Your task to perform on an android device: Open maps Image 0: 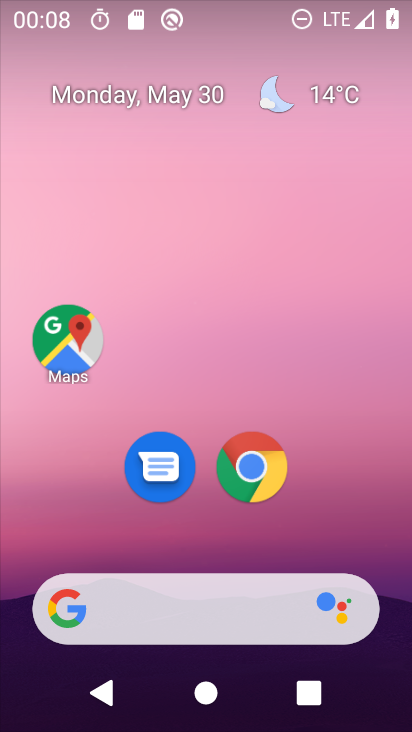
Step 0: click (62, 361)
Your task to perform on an android device: Open maps Image 1: 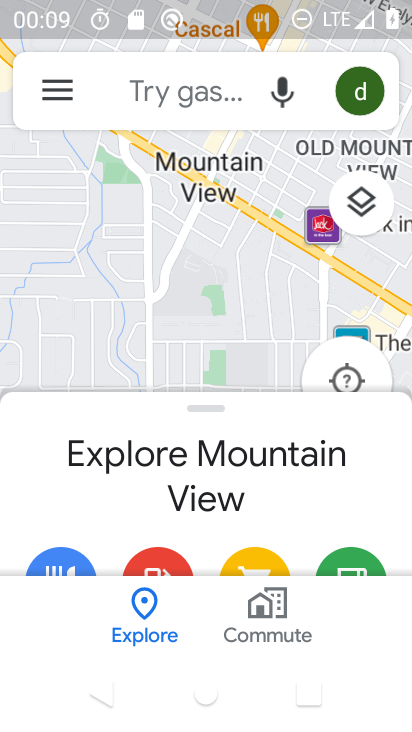
Step 1: task complete